Your task to perform on an android device: Open Chrome and go to settings Image 0: 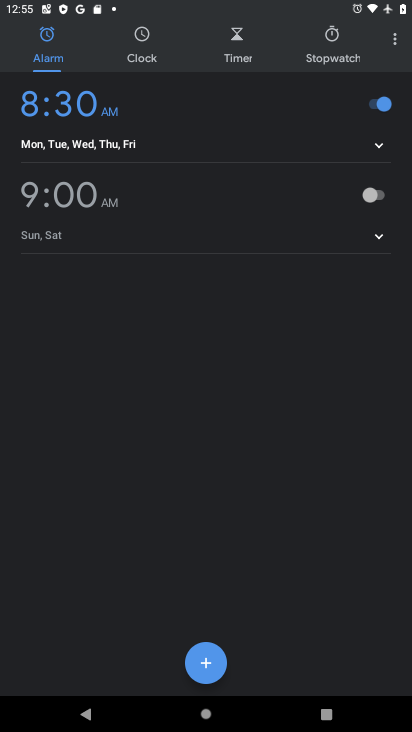
Step 0: press home button
Your task to perform on an android device: Open Chrome and go to settings Image 1: 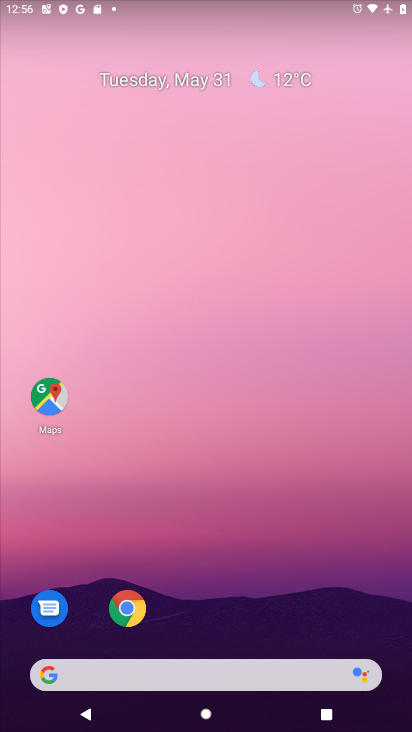
Step 1: click (124, 609)
Your task to perform on an android device: Open Chrome and go to settings Image 2: 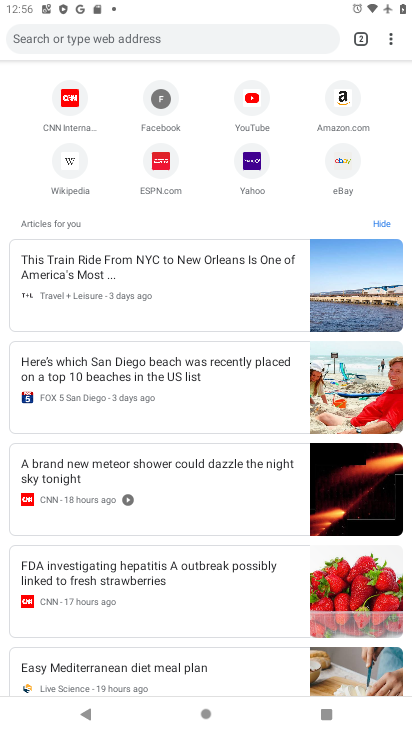
Step 2: click (385, 38)
Your task to perform on an android device: Open Chrome and go to settings Image 3: 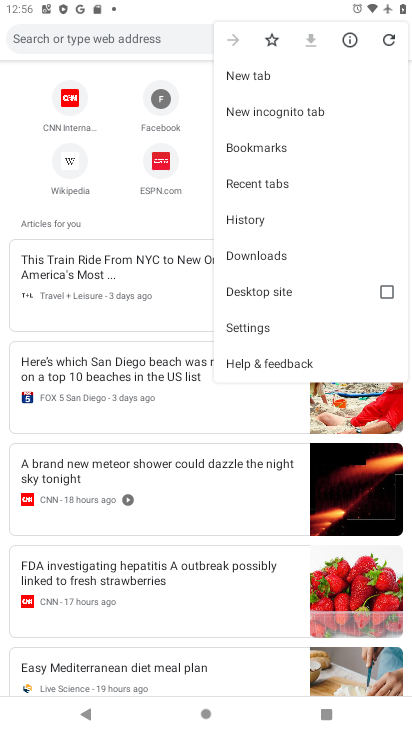
Step 3: click (261, 322)
Your task to perform on an android device: Open Chrome and go to settings Image 4: 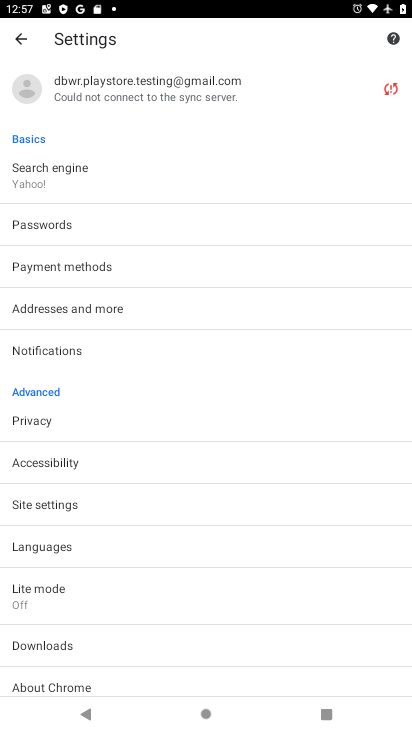
Step 4: task complete